Your task to perform on an android device: see sites visited before in the chrome app Image 0: 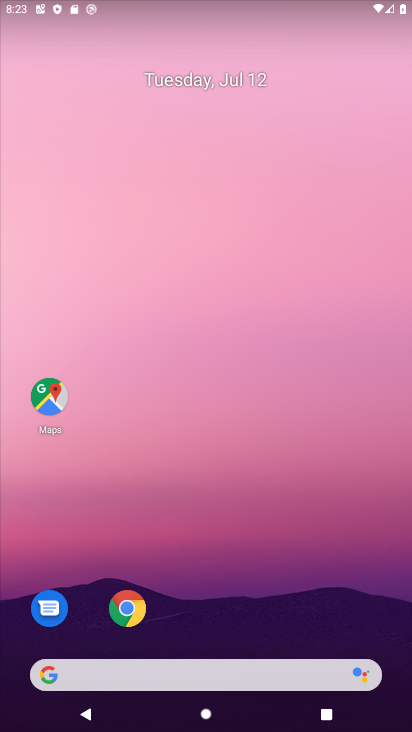
Step 0: click (125, 616)
Your task to perform on an android device: see sites visited before in the chrome app Image 1: 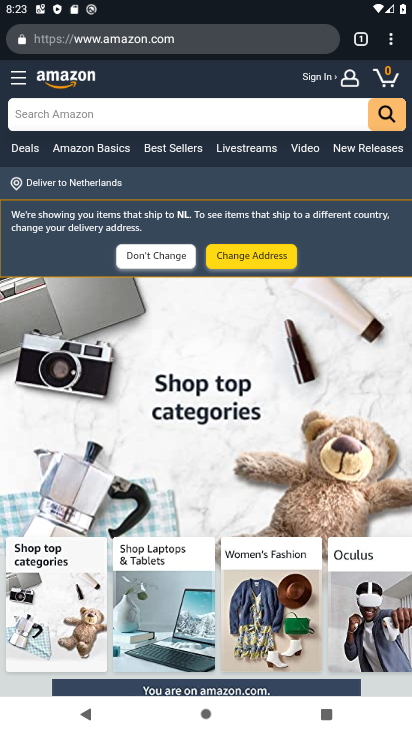
Step 1: click (398, 39)
Your task to perform on an android device: see sites visited before in the chrome app Image 2: 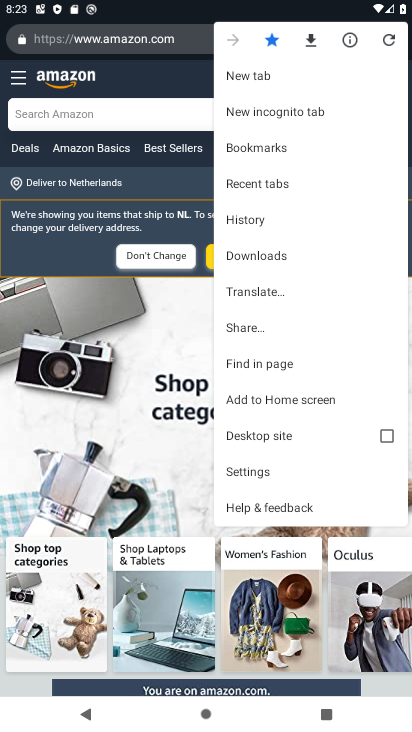
Step 2: click (245, 221)
Your task to perform on an android device: see sites visited before in the chrome app Image 3: 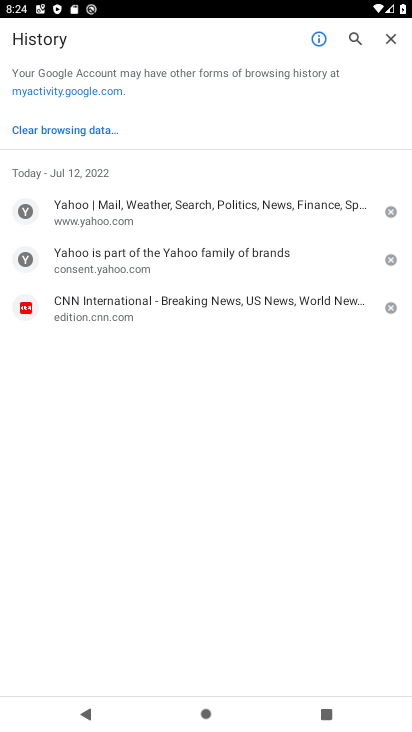
Step 3: task complete